Your task to perform on an android device: Show me recent news Image 0: 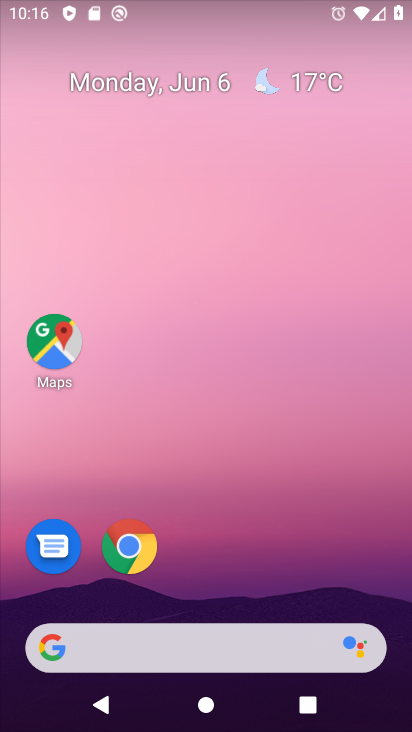
Step 0: click (209, 647)
Your task to perform on an android device: Show me recent news Image 1: 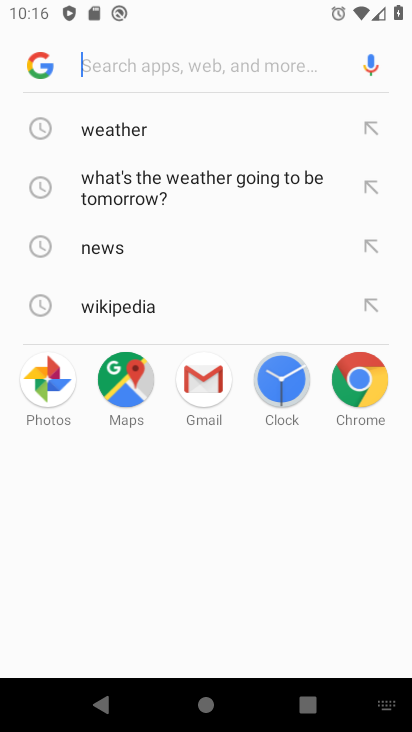
Step 1: type "recent news"
Your task to perform on an android device: Show me recent news Image 2: 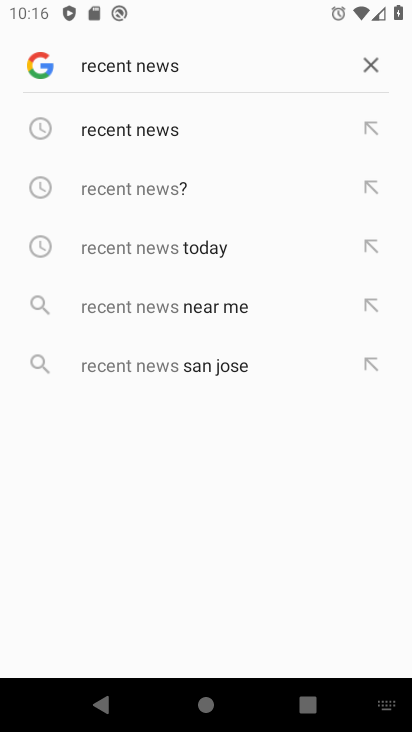
Step 2: click (146, 137)
Your task to perform on an android device: Show me recent news Image 3: 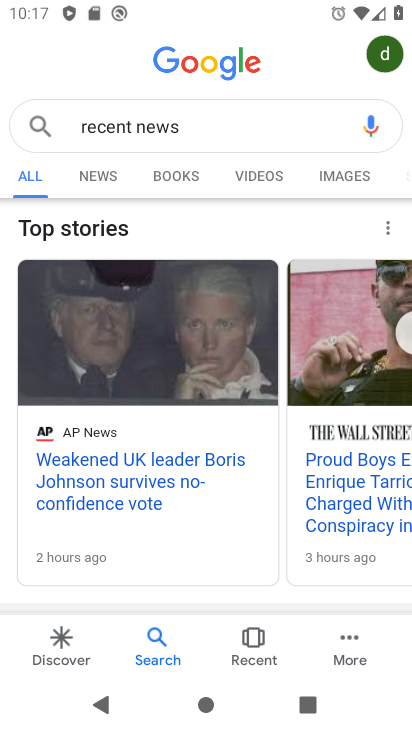
Step 3: task complete